Your task to perform on an android device: Do I have any events tomorrow? Image 0: 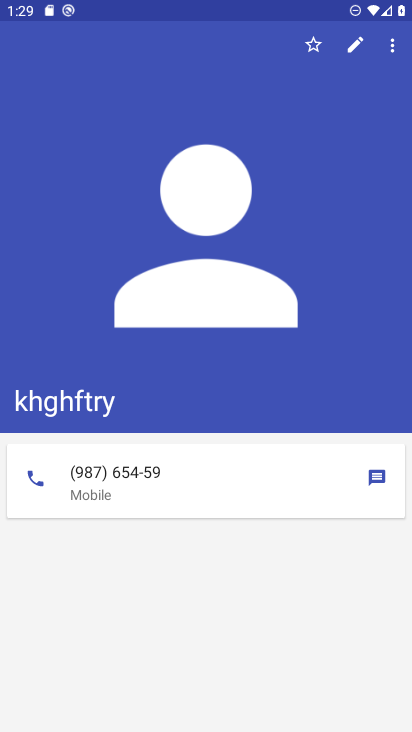
Step 0: press home button
Your task to perform on an android device: Do I have any events tomorrow? Image 1: 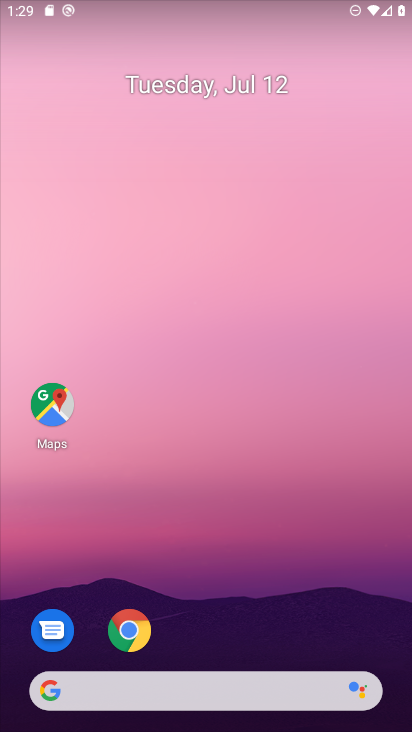
Step 1: drag from (369, 632) to (327, 194)
Your task to perform on an android device: Do I have any events tomorrow? Image 2: 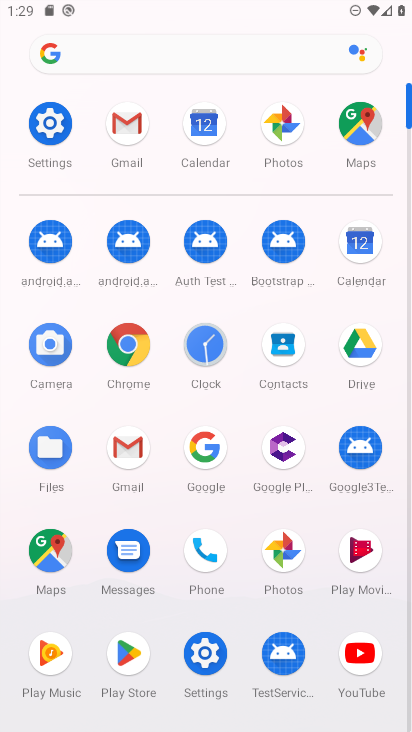
Step 2: click (359, 238)
Your task to perform on an android device: Do I have any events tomorrow? Image 3: 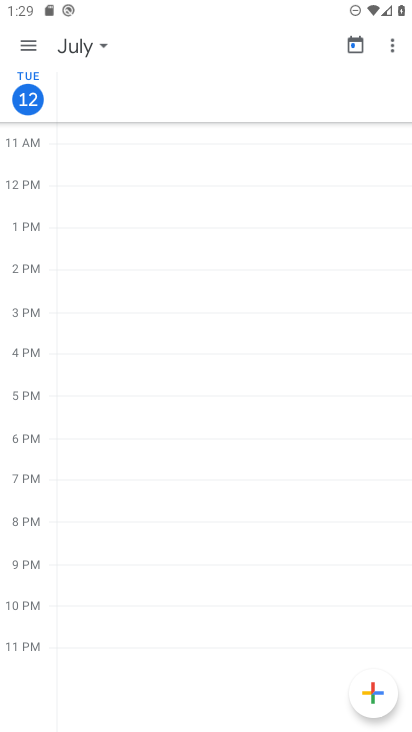
Step 3: click (29, 42)
Your task to perform on an android device: Do I have any events tomorrow? Image 4: 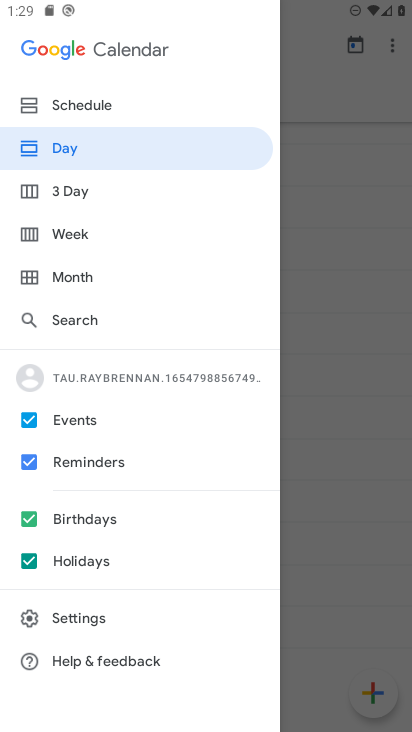
Step 4: click (68, 141)
Your task to perform on an android device: Do I have any events tomorrow? Image 5: 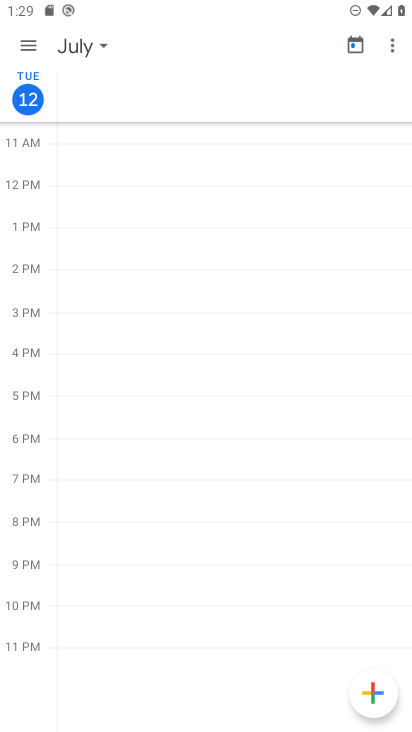
Step 5: click (103, 43)
Your task to perform on an android device: Do I have any events tomorrow? Image 6: 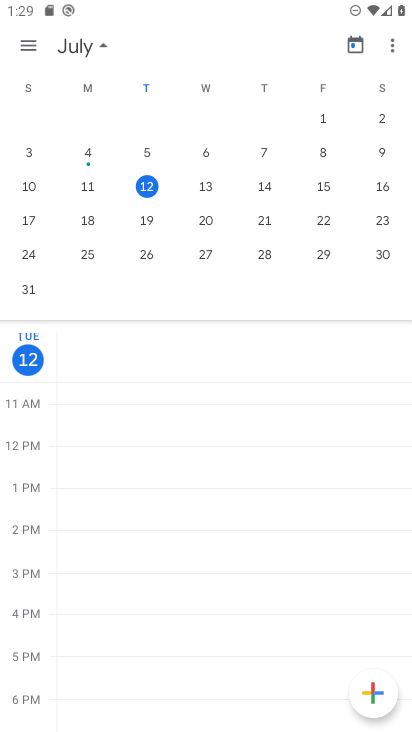
Step 6: click (199, 182)
Your task to perform on an android device: Do I have any events tomorrow? Image 7: 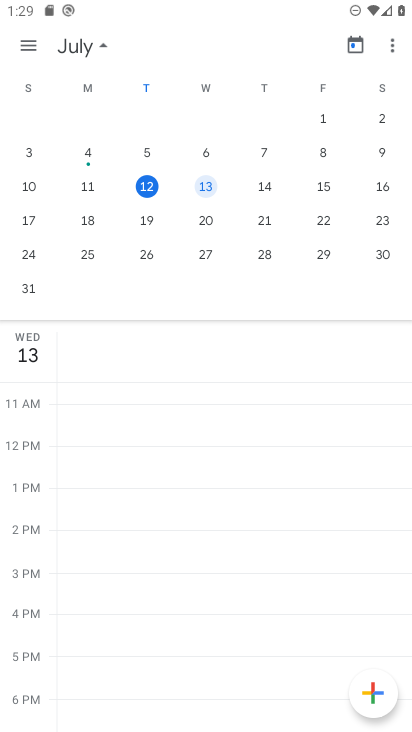
Step 7: task complete